Your task to perform on an android device: Go to wifi settings Image 0: 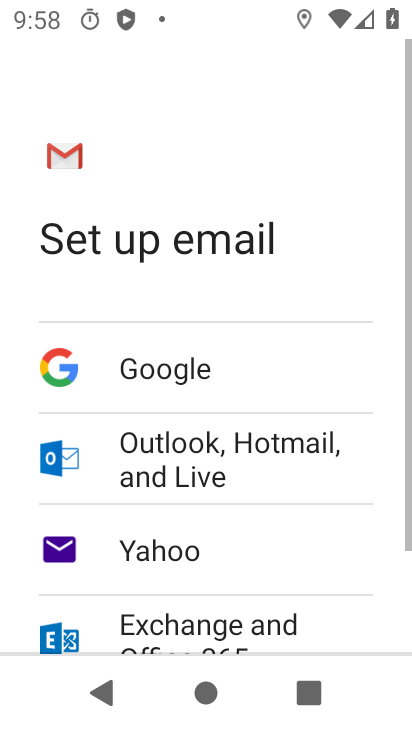
Step 0: press home button
Your task to perform on an android device: Go to wifi settings Image 1: 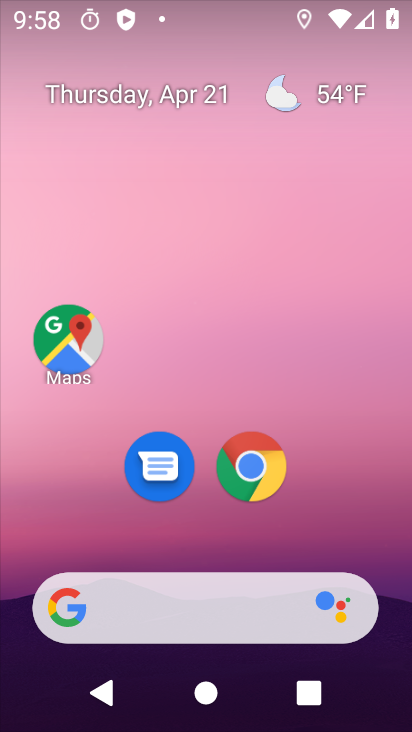
Step 1: drag from (355, 523) to (344, 161)
Your task to perform on an android device: Go to wifi settings Image 2: 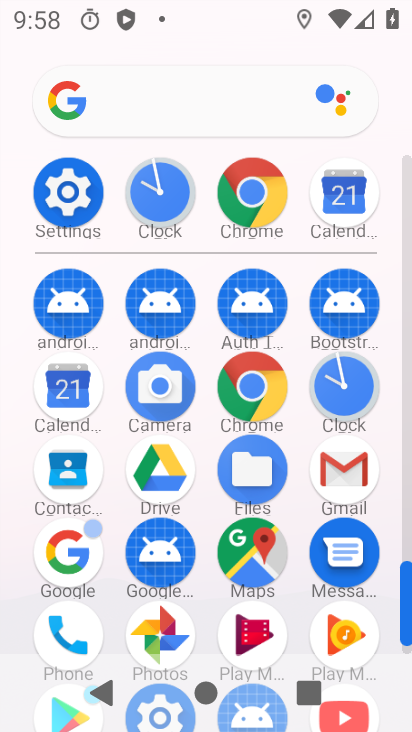
Step 2: click (89, 207)
Your task to perform on an android device: Go to wifi settings Image 3: 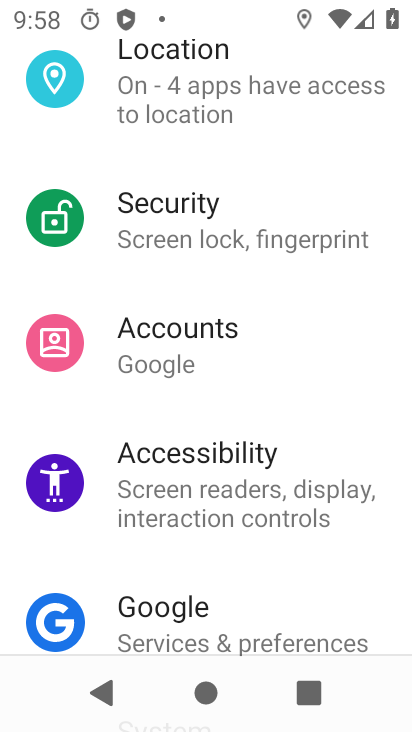
Step 3: drag from (249, 166) to (263, 599)
Your task to perform on an android device: Go to wifi settings Image 4: 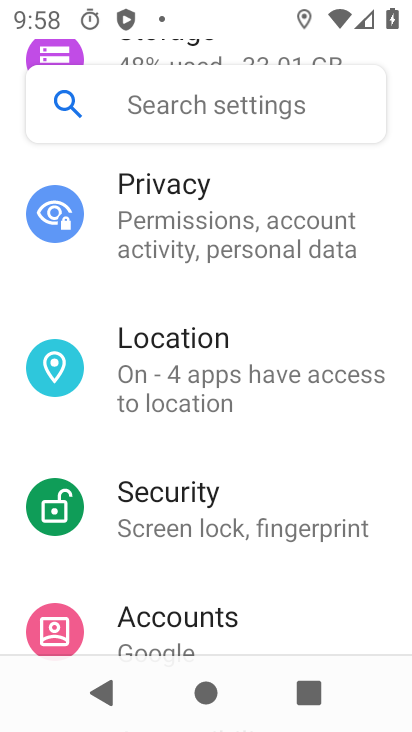
Step 4: drag from (280, 191) to (280, 494)
Your task to perform on an android device: Go to wifi settings Image 5: 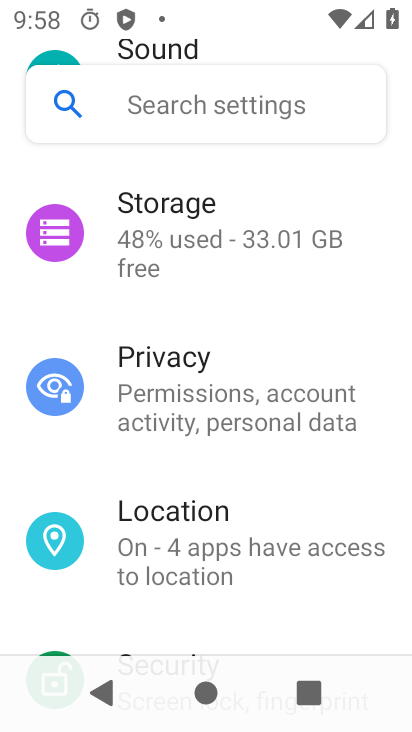
Step 5: drag from (265, 198) to (272, 543)
Your task to perform on an android device: Go to wifi settings Image 6: 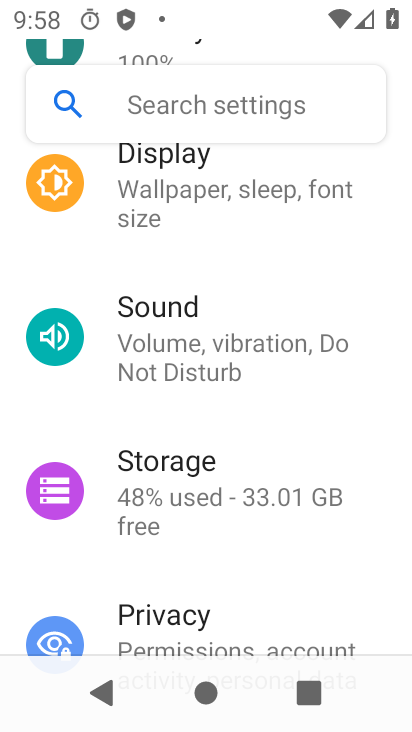
Step 6: drag from (249, 228) to (271, 629)
Your task to perform on an android device: Go to wifi settings Image 7: 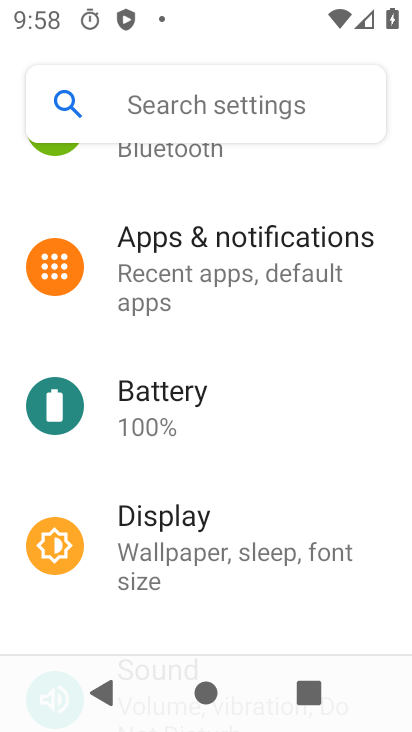
Step 7: drag from (235, 196) to (278, 632)
Your task to perform on an android device: Go to wifi settings Image 8: 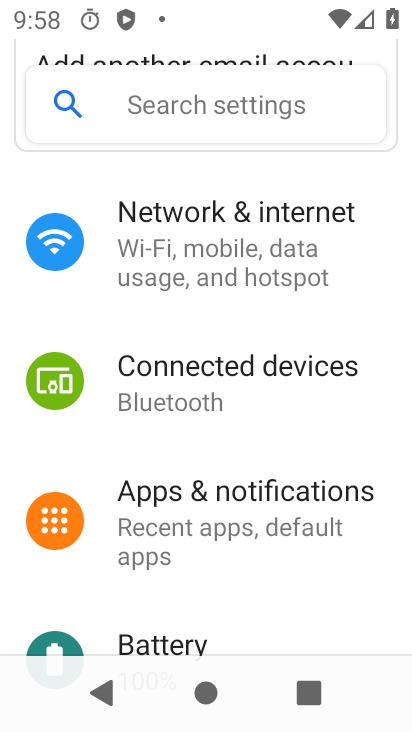
Step 8: click (224, 255)
Your task to perform on an android device: Go to wifi settings Image 9: 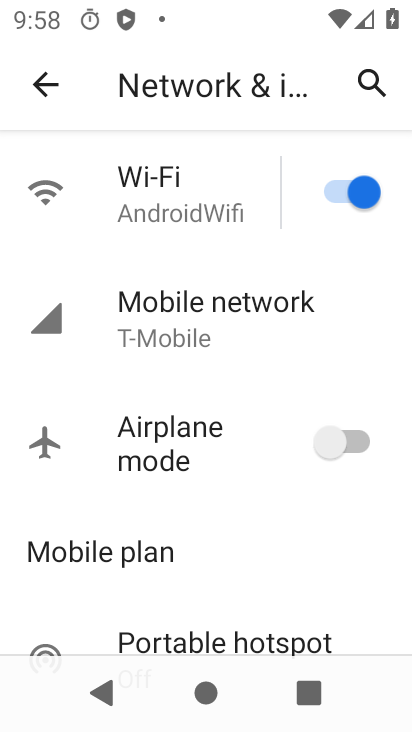
Step 9: click (203, 220)
Your task to perform on an android device: Go to wifi settings Image 10: 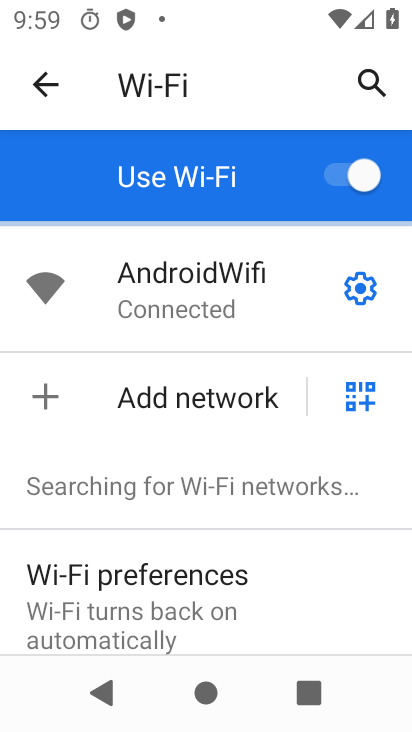
Step 10: click (346, 290)
Your task to perform on an android device: Go to wifi settings Image 11: 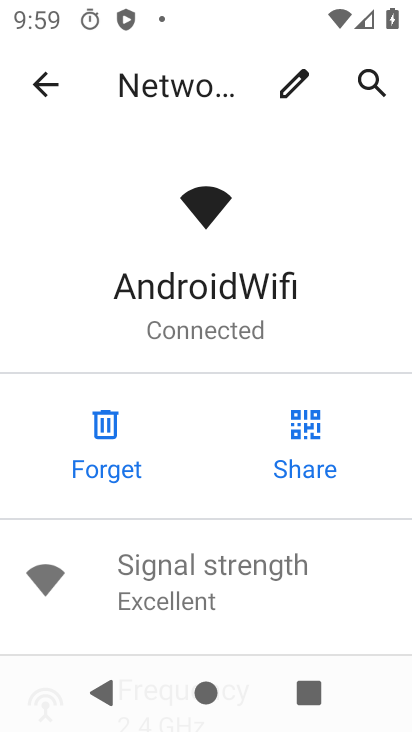
Step 11: task complete